Your task to perform on an android device: Open my contact list Image 0: 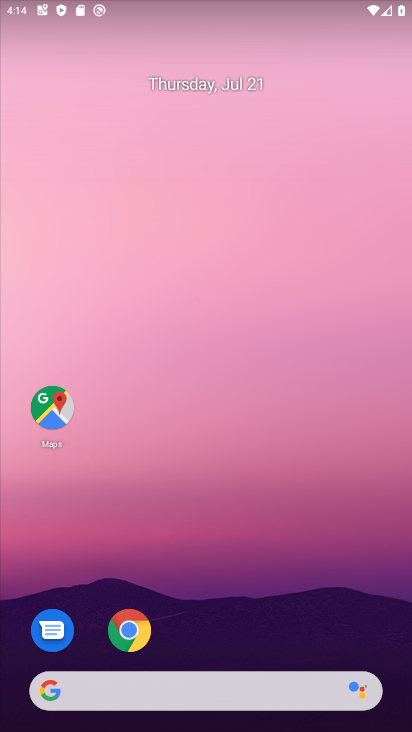
Step 0: drag from (57, 683) to (301, 305)
Your task to perform on an android device: Open my contact list Image 1: 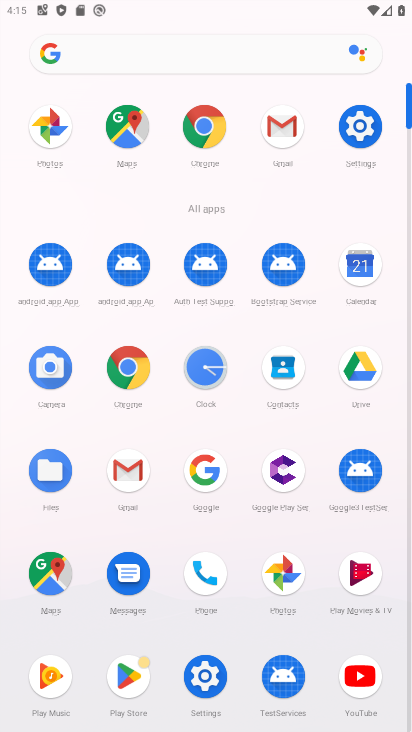
Step 1: click (202, 581)
Your task to perform on an android device: Open my contact list Image 2: 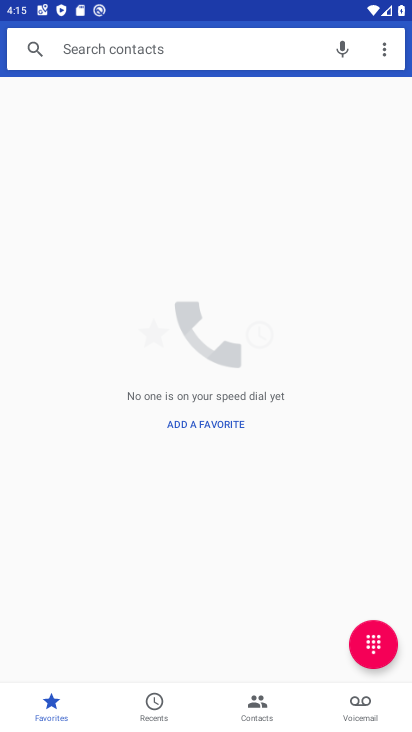
Step 2: click (251, 709)
Your task to perform on an android device: Open my contact list Image 3: 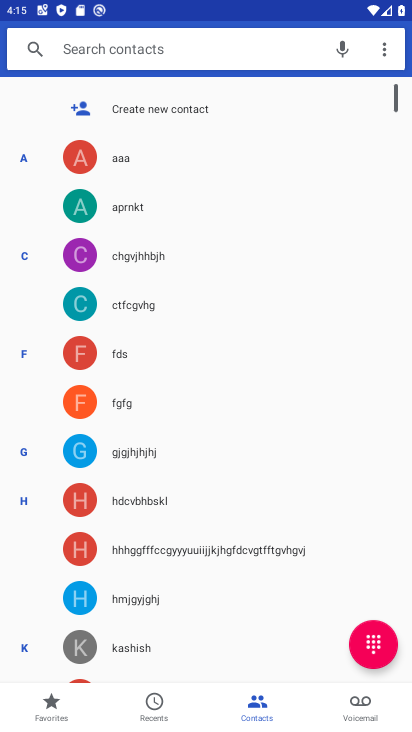
Step 3: task complete